Your task to perform on an android device: What's the weather going to be this weekend? Image 0: 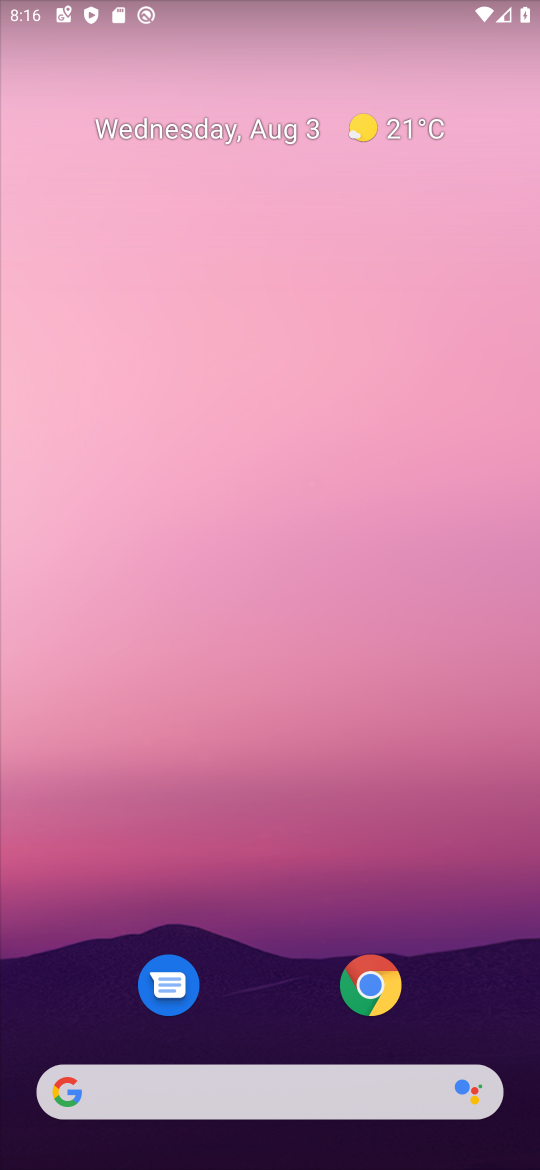
Step 0: drag from (250, 961) to (254, 256)
Your task to perform on an android device: What's the weather going to be this weekend? Image 1: 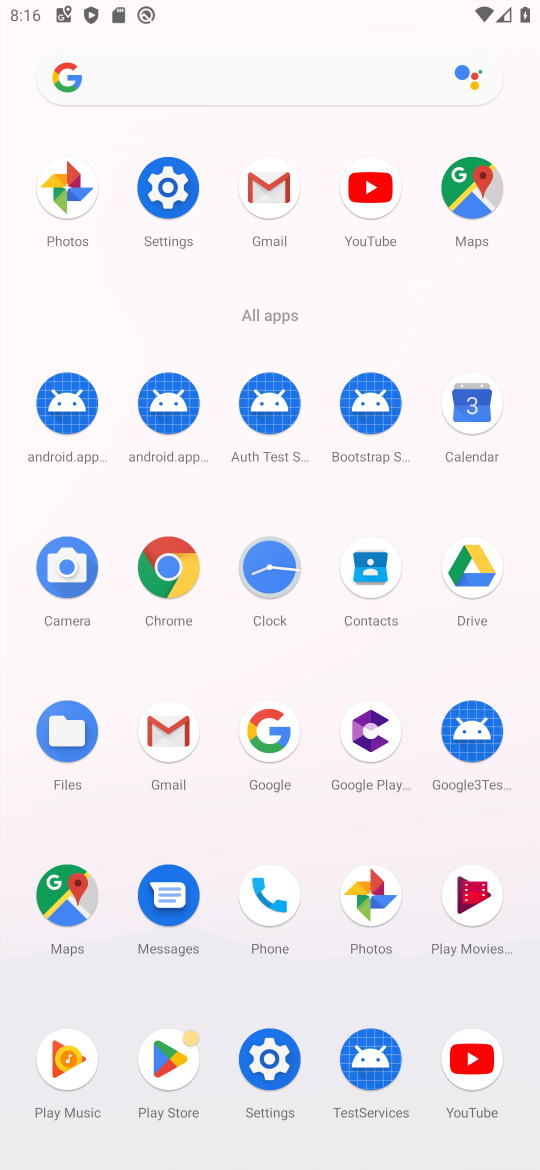
Step 1: click (256, 732)
Your task to perform on an android device: What's the weather going to be this weekend? Image 2: 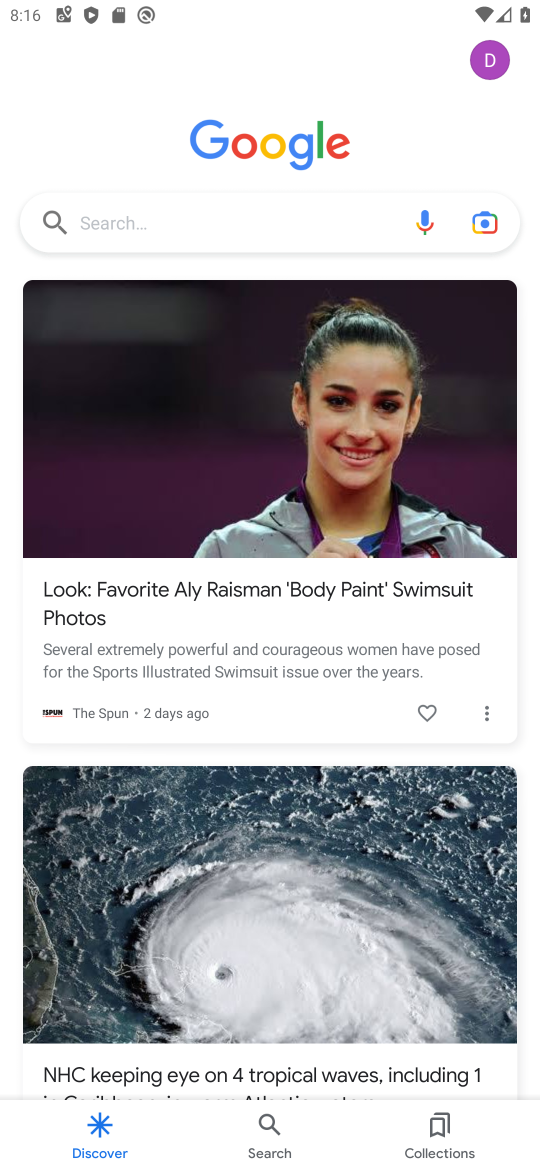
Step 2: click (241, 228)
Your task to perform on an android device: What's the weather going to be this weekend? Image 3: 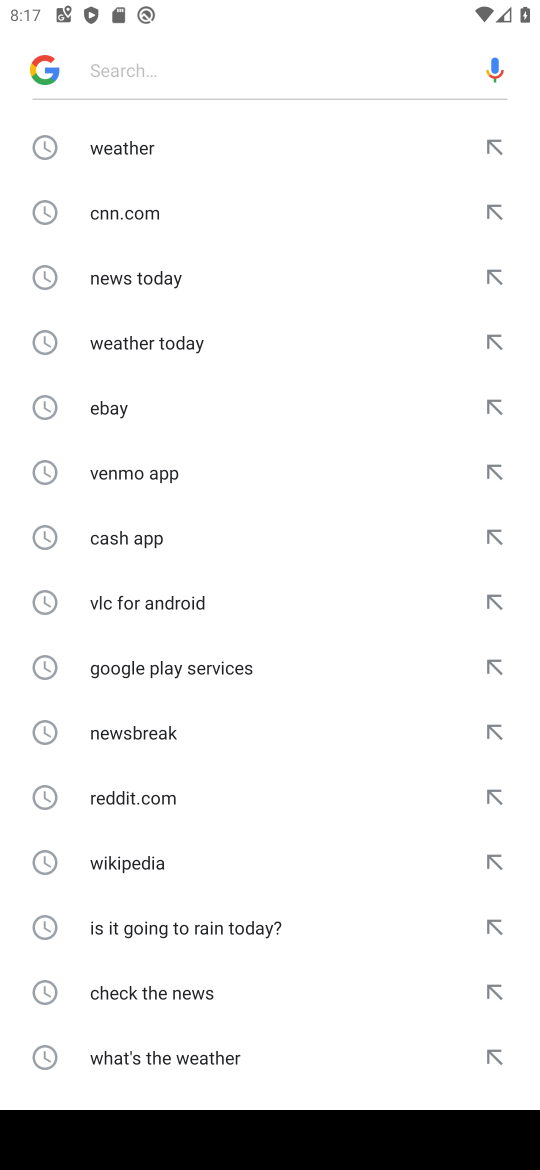
Step 3: click (101, 138)
Your task to perform on an android device: What's the weather going to be this weekend? Image 4: 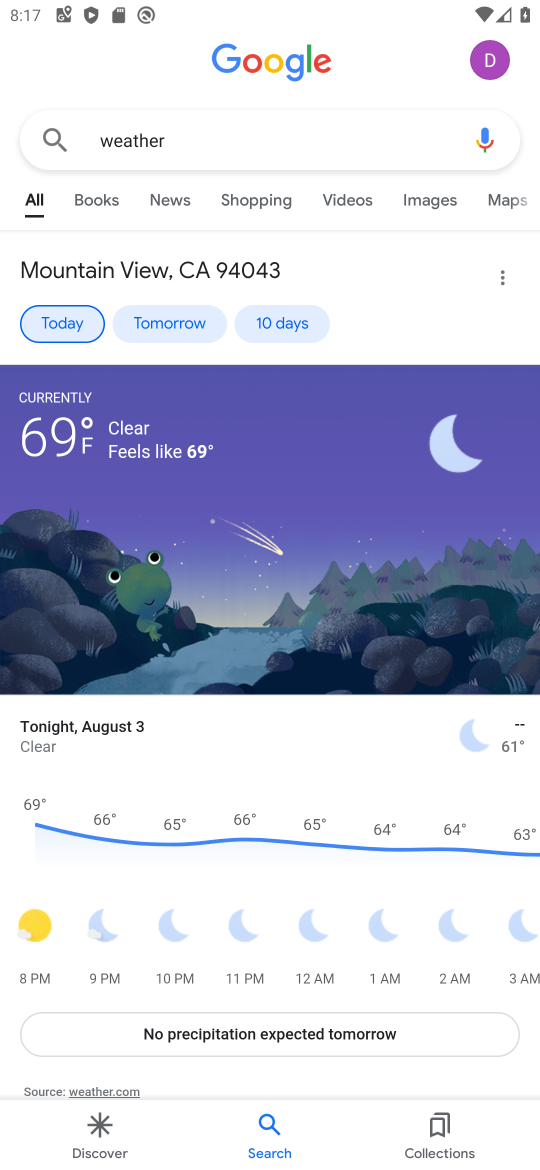
Step 4: click (284, 325)
Your task to perform on an android device: What's the weather going to be this weekend? Image 5: 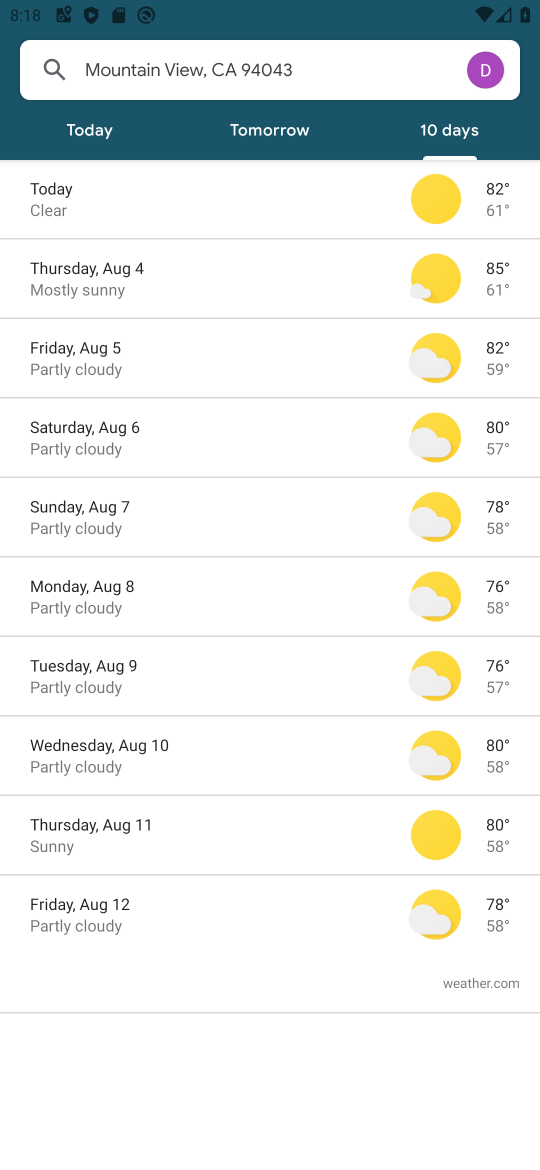
Step 5: task complete